Your task to perform on an android device: Open Android settings Image 0: 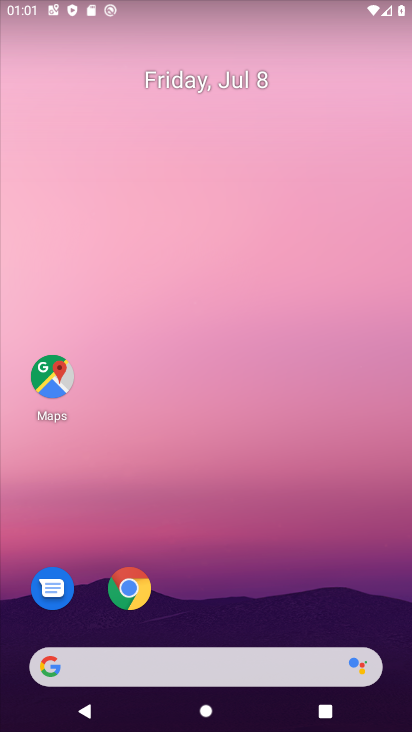
Step 0: drag from (208, 493) to (403, 388)
Your task to perform on an android device: Open Android settings Image 1: 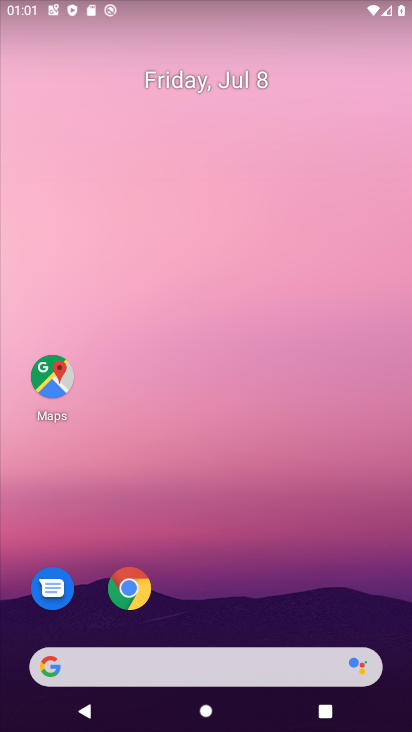
Step 1: drag from (237, 540) to (255, 29)
Your task to perform on an android device: Open Android settings Image 2: 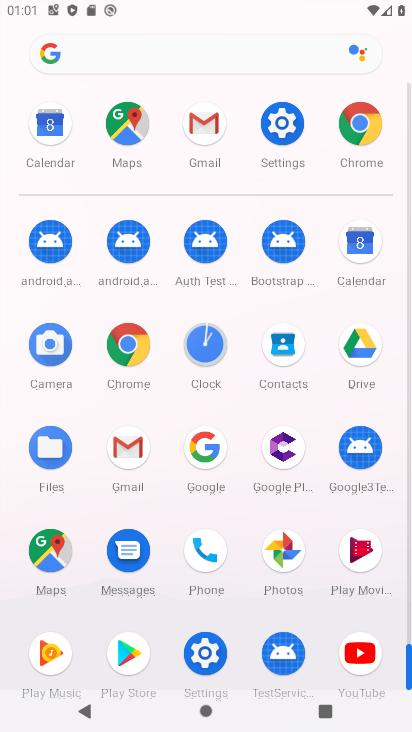
Step 2: click (280, 125)
Your task to perform on an android device: Open Android settings Image 3: 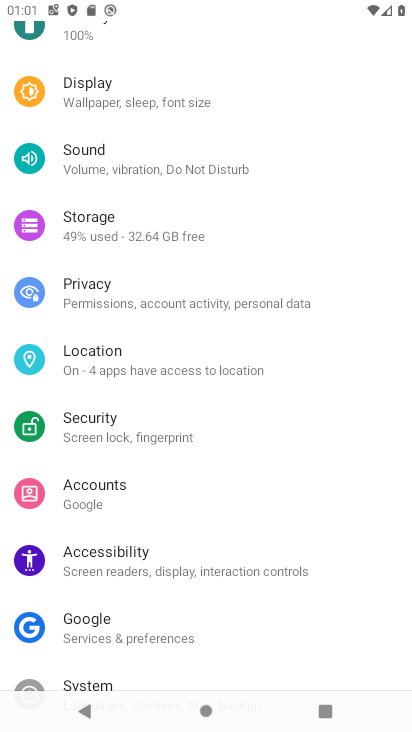
Step 3: drag from (113, 612) to (270, 8)
Your task to perform on an android device: Open Android settings Image 4: 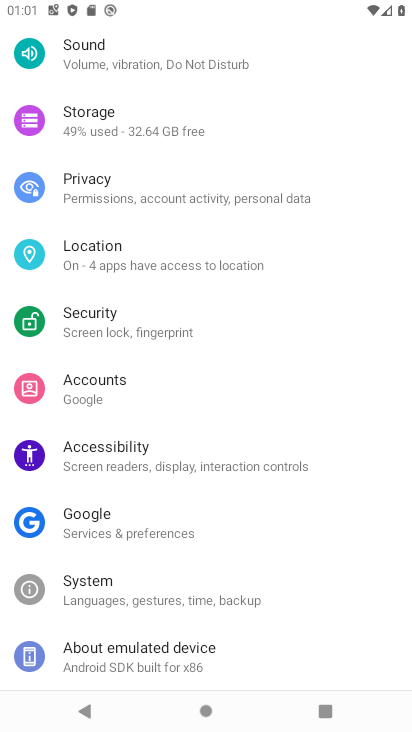
Step 4: click (113, 654)
Your task to perform on an android device: Open Android settings Image 5: 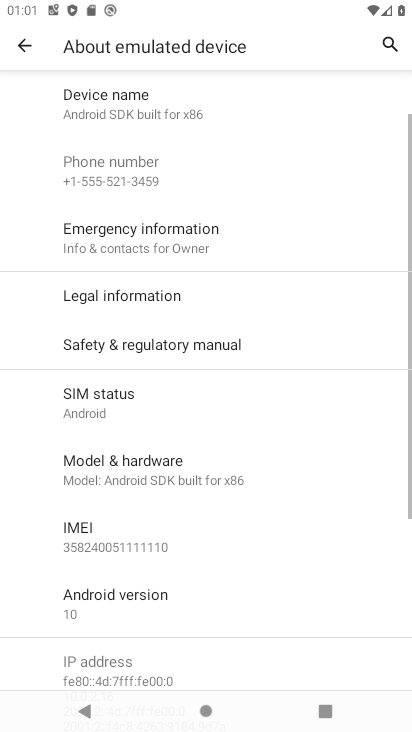
Step 5: click (168, 611)
Your task to perform on an android device: Open Android settings Image 6: 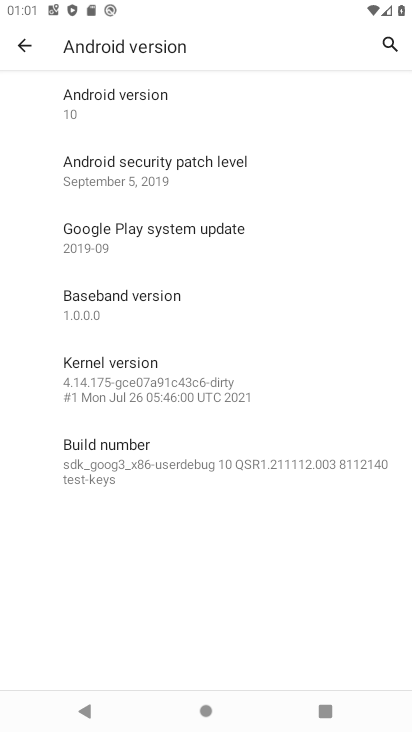
Step 6: click (127, 112)
Your task to perform on an android device: Open Android settings Image 7: 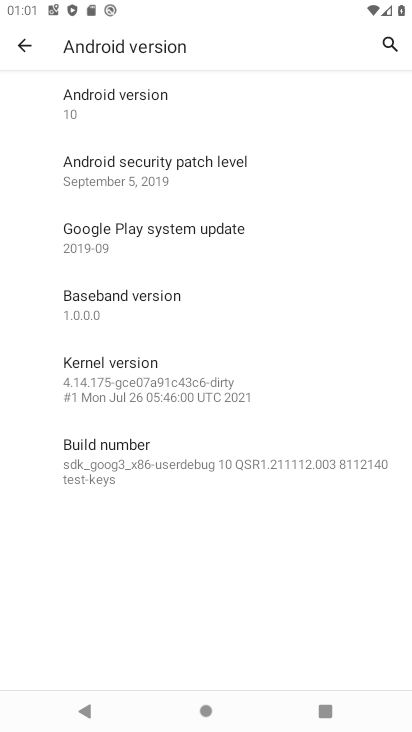
Step 7: task complete